Your task to perform on an android device: Open the map Image 0: 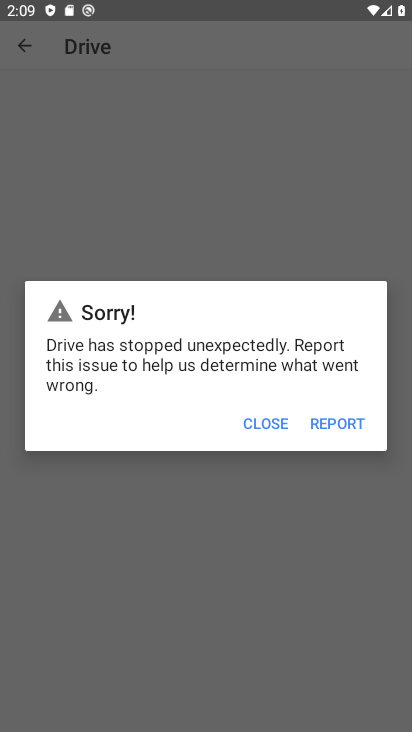
Step 0: press home button
Your task to perform on an android device: Open the map Image 1: 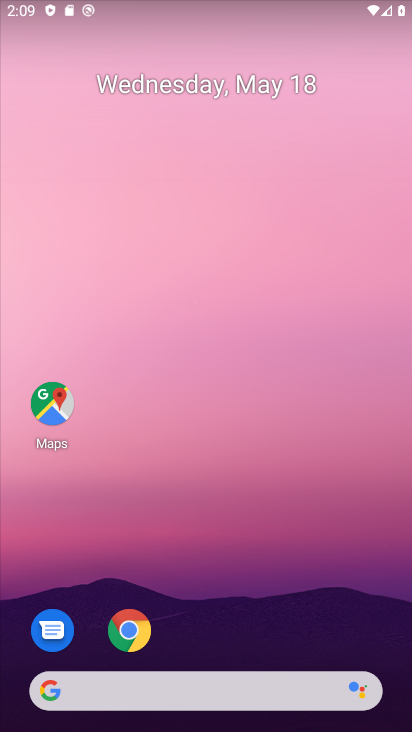
Step 1: click (46, 392)
Your task to perform on an android device: Open the map Image 2: 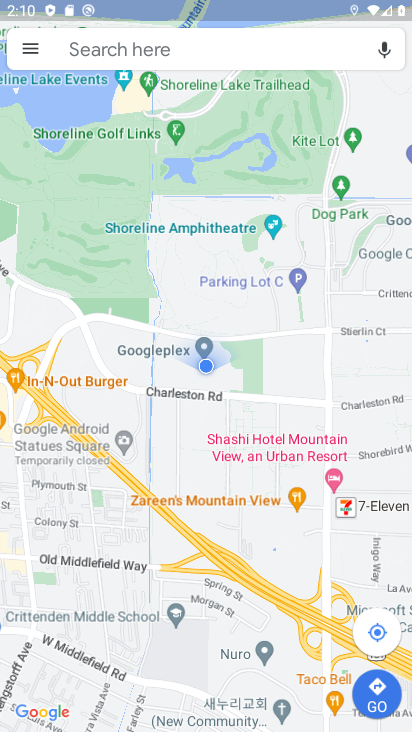
Step 2: task complete